Your task to perform on an android device: turn pop-ups off in chrome Image 0: 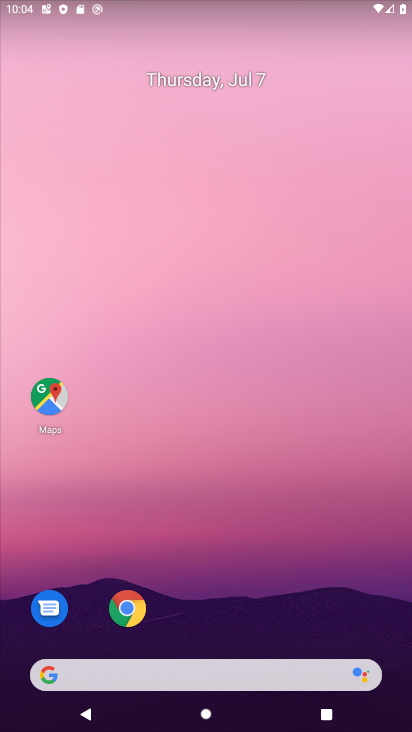
Step 0: click (120, 607)
Your task to perform on an android device: turn pop-ups off in chrome Image 1: 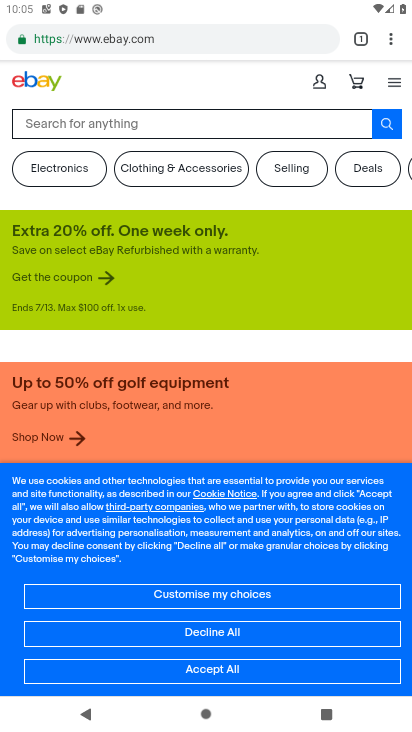
Step 1: click (382, 40)
Your task to perform on an android device: turn pop-ups off in chrome Image 2: 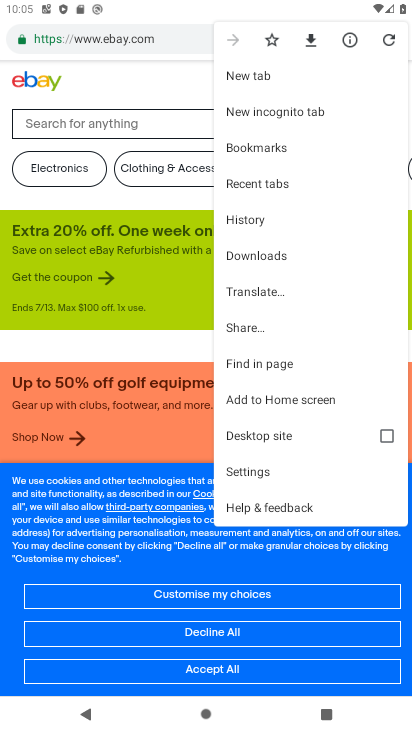
Step 2: click (255, 471)
Your task to perform on an android device: turn pop-ups off in chrome Image 3: 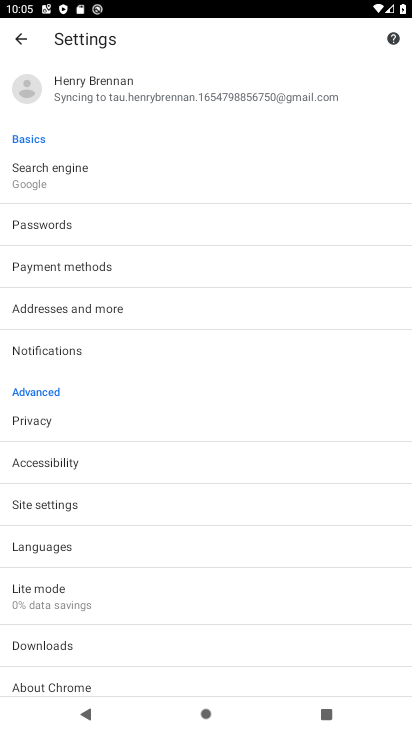
Step 3: click (64, 498)
Your task to perform on an android device: turn pop-ups off in chrome Image 4: 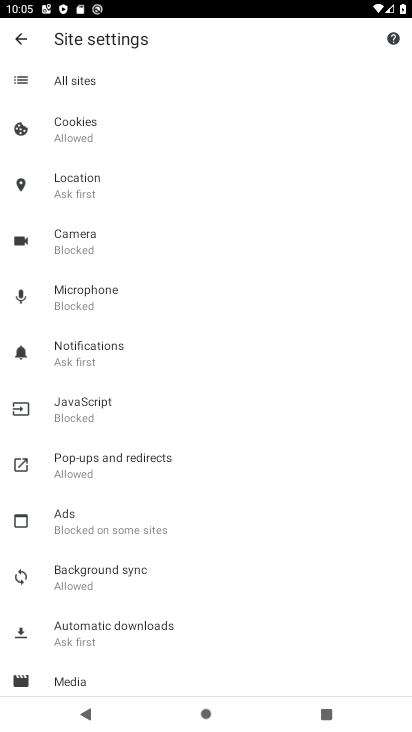
Step 4: click (87, 459)
Your task to perform on an android device: turn pop-ups off in chrome Image 5: 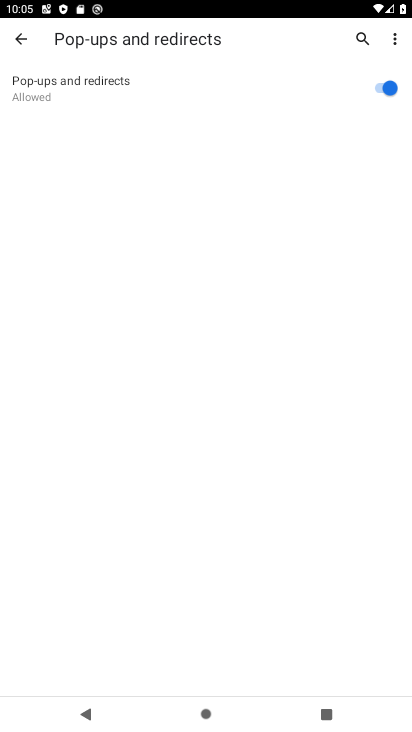
Step 5: click (385, 92)
Your task to perform on an android device: turn pop-ups off in chrome Image 6: 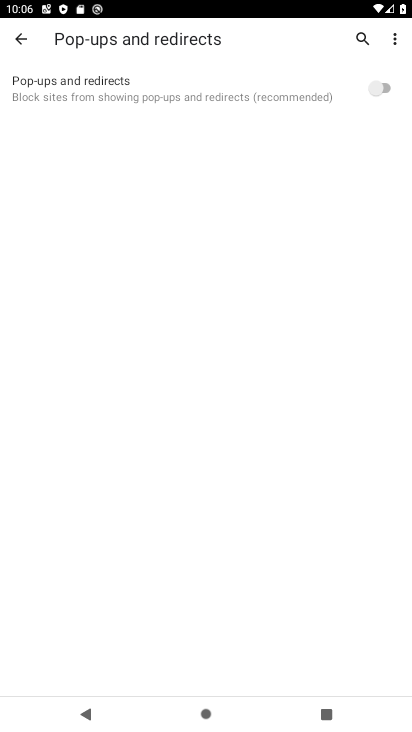
Step 6: task complete